Your task to perform on an android device: clear all cookies in the chrome app Image 0: 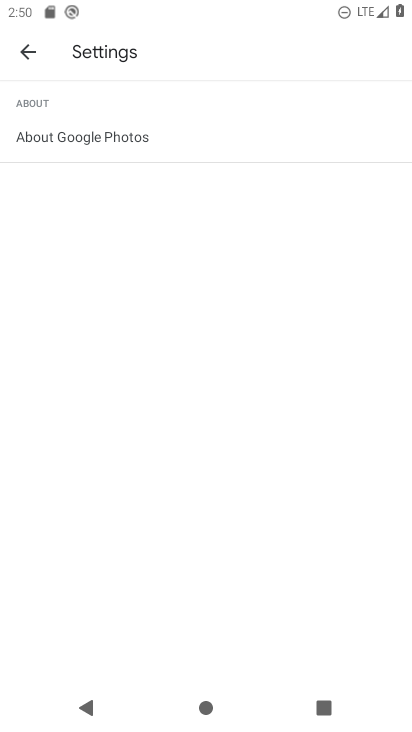
Step 0: drag from (328, 624) to (359, 139)
Your task to perform on an android device: clear all cookies in the chrome app Image 1: 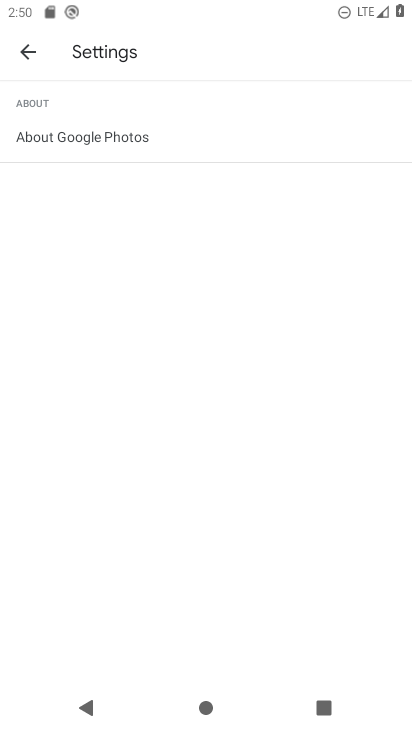
Step 1: press home button
Your task to perform on an android device: clear all cookies in the chrome app Image 2: 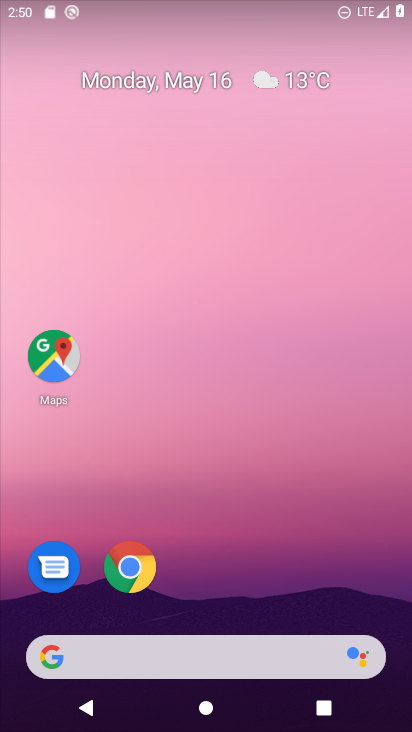
Step 2: click (133, 559)
Your task to perform on an android device: clear all cookies in the chrome app Image 3: 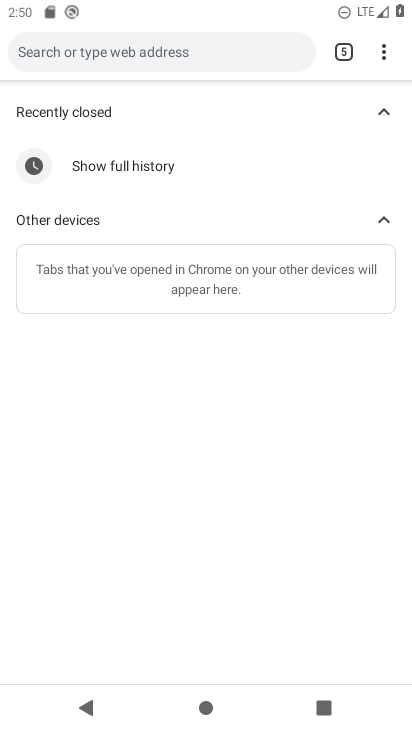
Step 3: click (388, 60)
Your task to perform on an android device: clear all cookies in the chrome app Image 4: 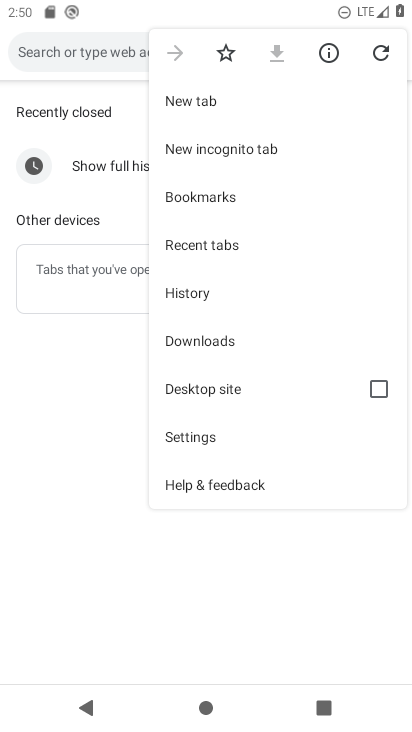
Step 4: click (211, 296)
Your task to perform on an android device: clear all cookies in the chrome app Image 5: 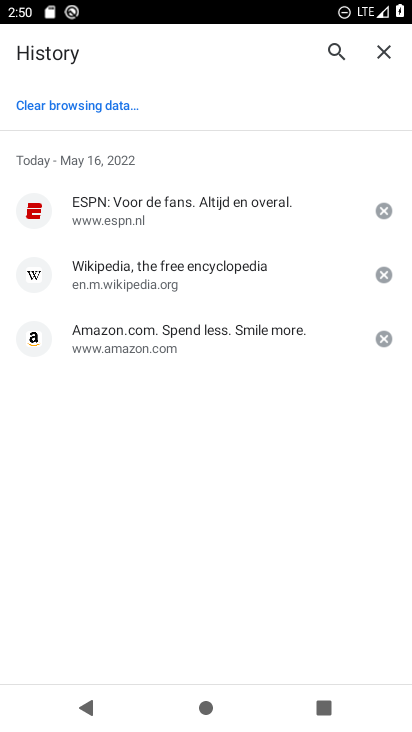
Step 5: click (77, 107)
Your task to perform on an android device: clear all cookies in the chrome app Image 6: 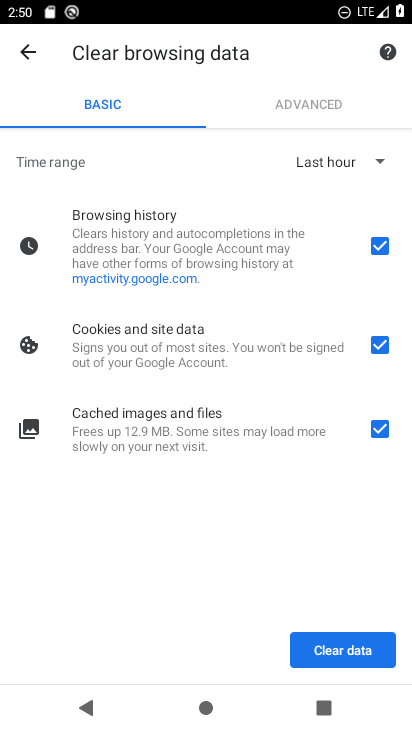
Step 6: click (384, 244)
Your task to perform on an android device: clear all cookies in the chrome app Image 7: 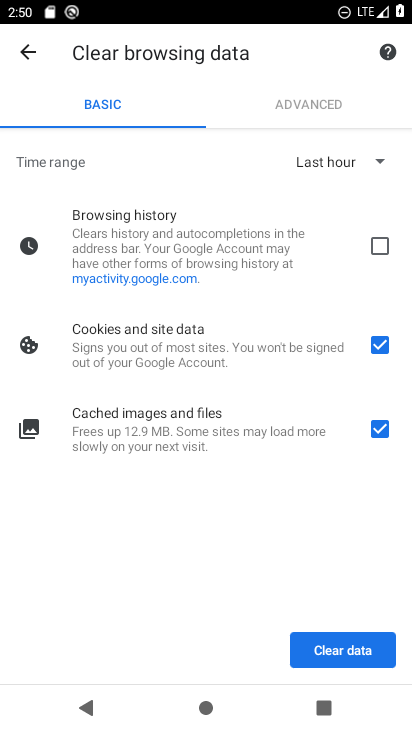
Step 7: click (359, 138)
Your task to perform on an android device: clear all cookies in the chrome app Image 8: 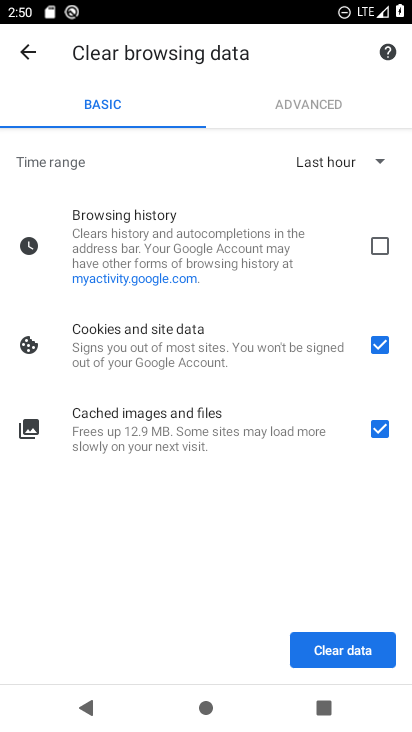
Step 8: click (348, 154)
Your task to perform on an android device: clear all cookies in the chrome app Image 9: 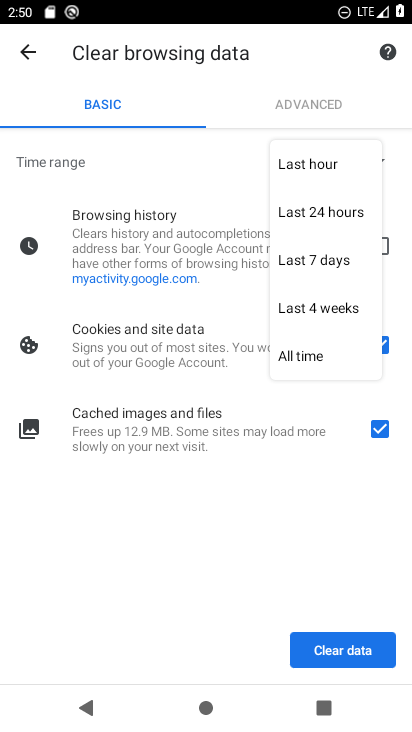
Step 9: click (297, 361)
Your task to perform on an android device: clear all cookies in the chrome app Image 10: 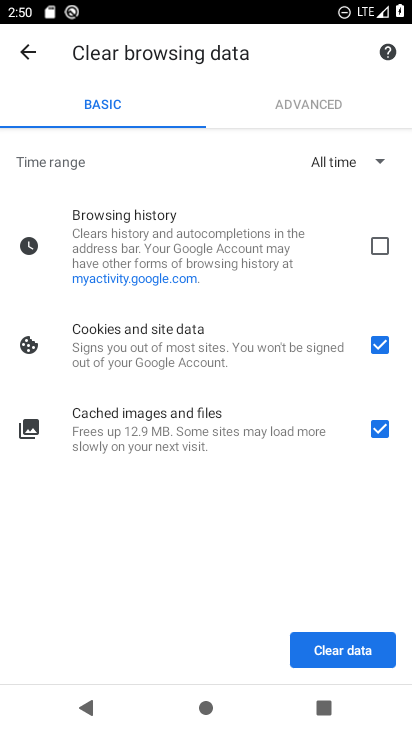
Step 10: click (379, 432)
Your task to perform on an android device: clear all cookies in the chrome app Image 11: 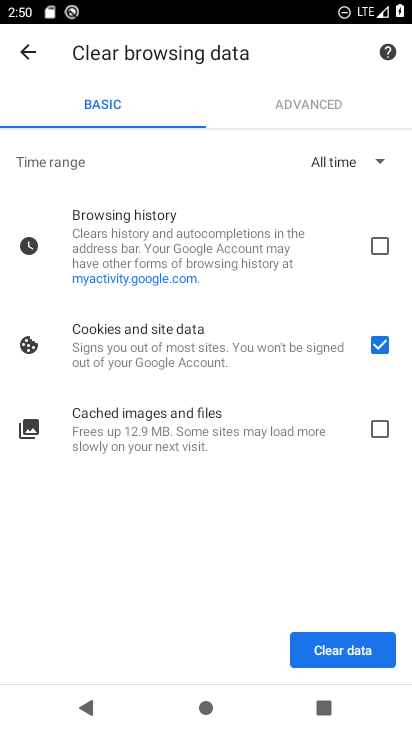
Step 11: click (371, 650)
Your task to perform on an android device: clear all cookies in the chrome app Image 12: 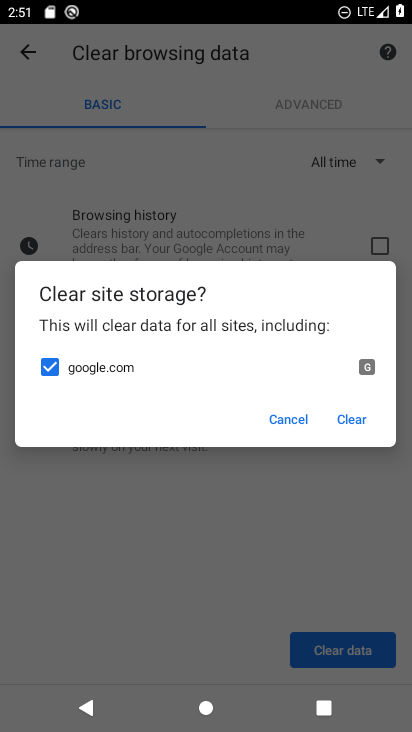
Step 12: click (353, 415)
Your task to perform on an android device: clear all cookies in the chrome app Image 13: 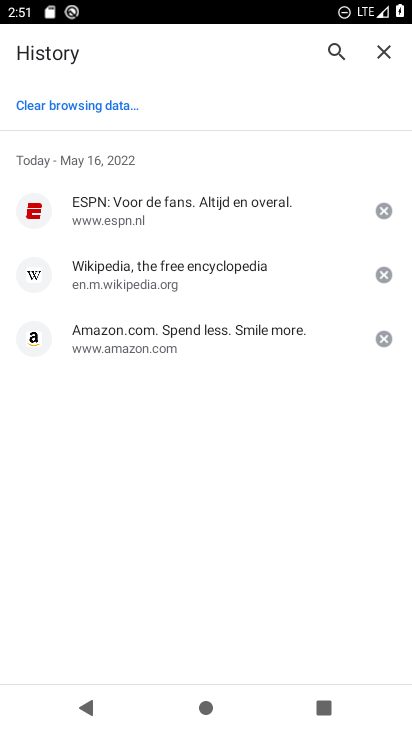
Step 13: task complete